Your task to perform on an android device: delete a single message in the gmail app Image 0: 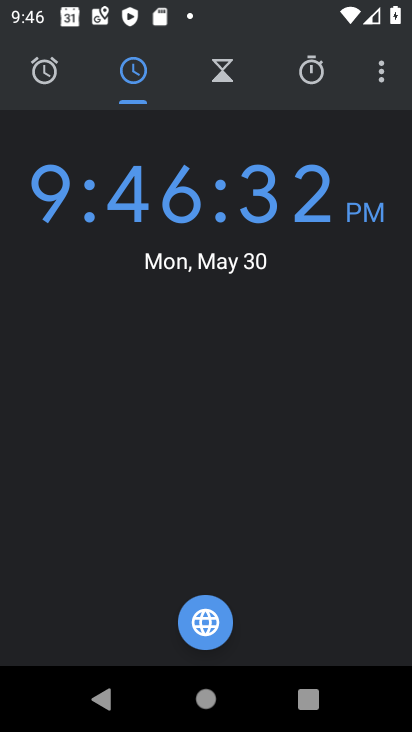
Step 0: click (212, 178)
Your task to perform on an android device: delete a single message in the gmail app Image 1: 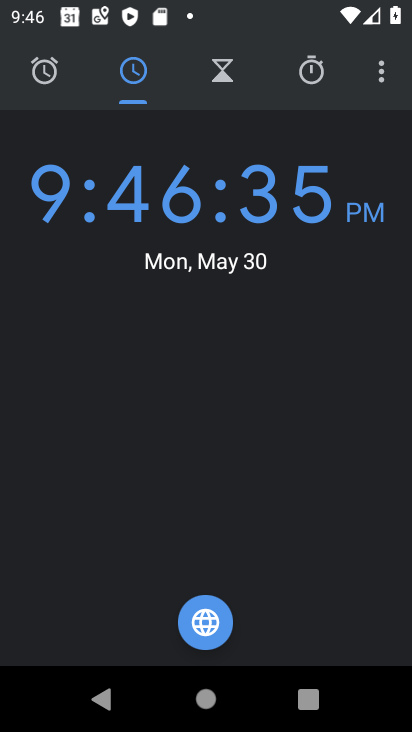
Step 1: press home button
Your task to perform on an android device: delete a single message in the gmail app Image 2: 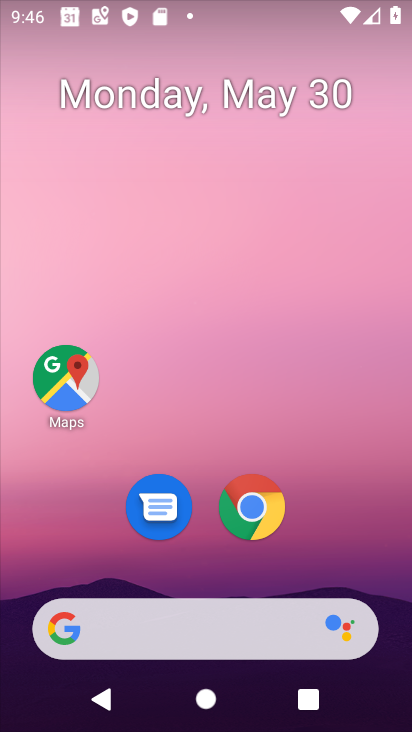
Step 2: drag from (179, 327) to (179, 180)
Your task to perform on an android device: delete a single message in the gmail app Image 3: 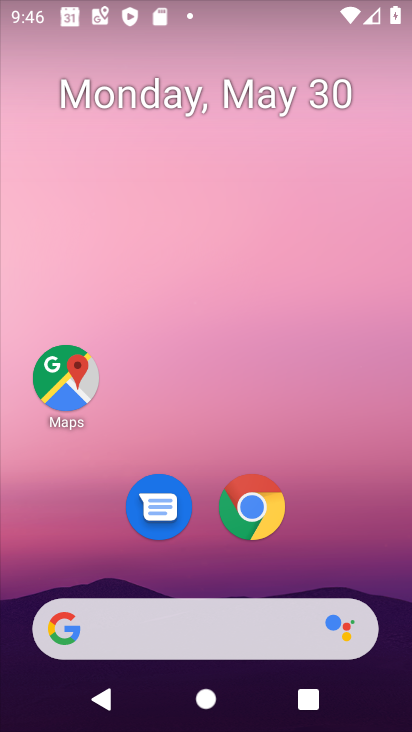
Step 3: drag from (227, 601) to (223, 39)
Your task to perform on an android device: delete a single message in the gmail app Image 4: 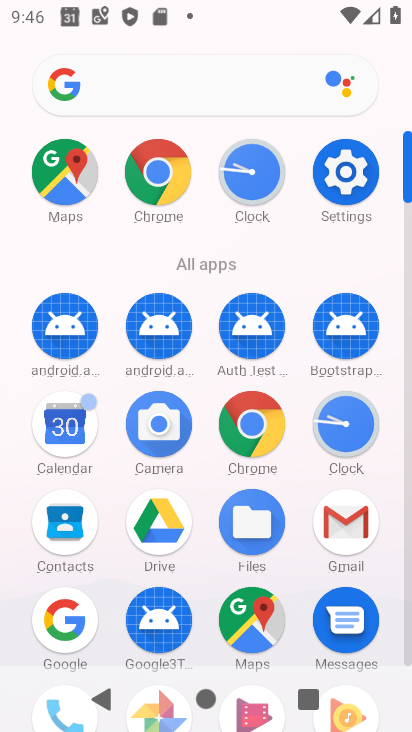
Step 4: drag from (211, 440) to (212, 333)
Your task to perform on an android device: delete a single message in the gmail app Image 5: 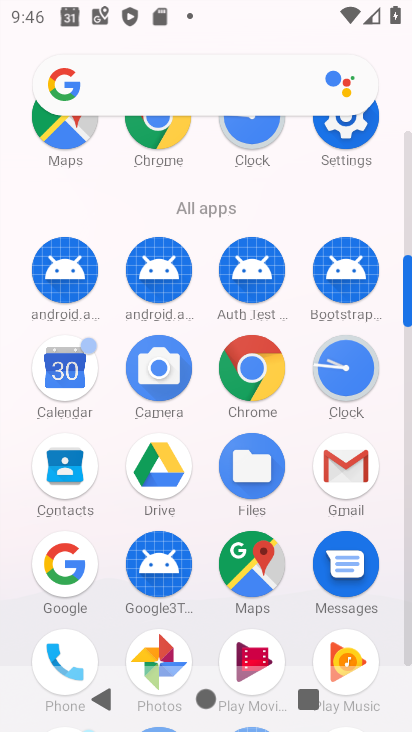
Step 5: click (352, 482)
Your task to perform on an android device: delete a single message in the gmail app Image 6: 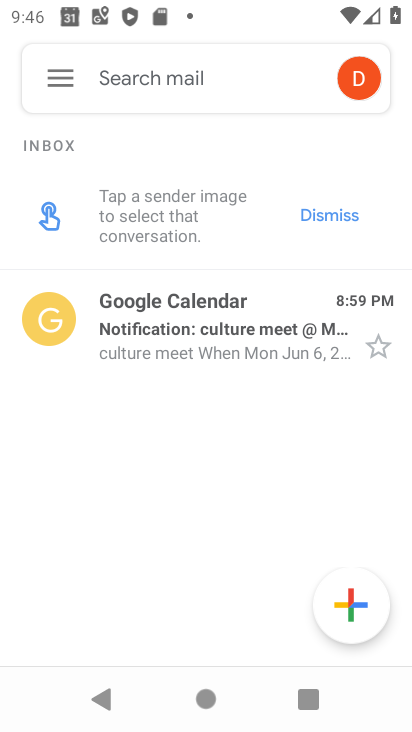
Step 6: click (57, 70)
Your task to perform on an android device: delete a single message in the gmail app Image 7: 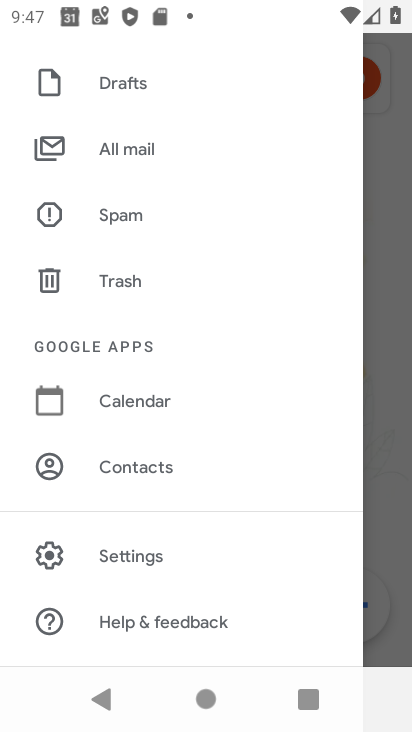
Step 7: drag from (142, 58) to (201, 564)
Your task to perform on an android device: delete a single message in the gmail app Image 8: 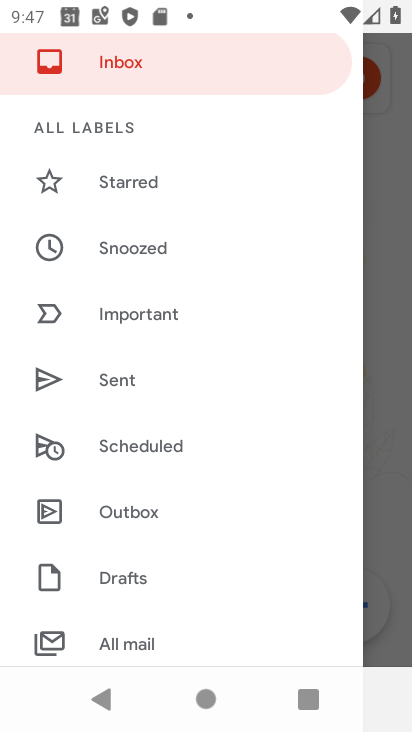
Step 8: click (129, 76)
Your task to perform on an android device: delete a single message in the gmail app Image 9: 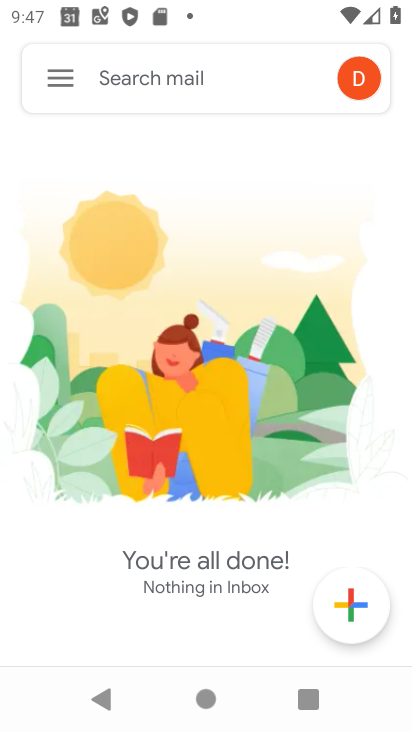
Step 9: task complete